Your task to perform on an android device: toggle location history Image 0: 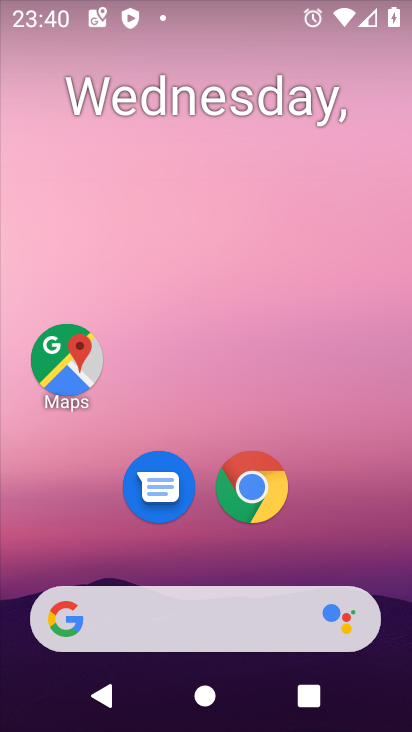
Step 0: click (70, 363)
Your task to perform on an android device: toggle location history Image 1: 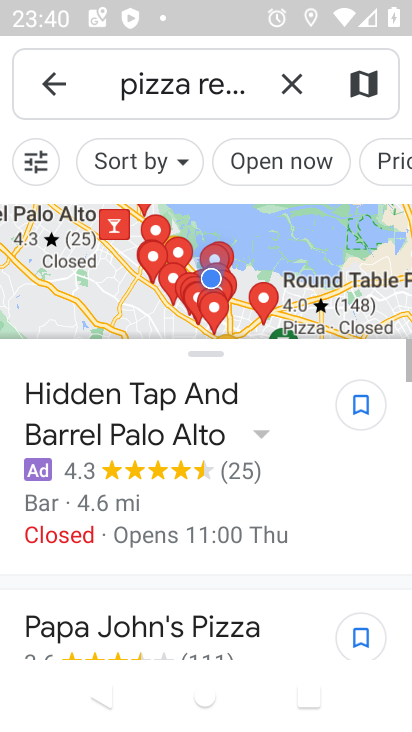
Step 1: click (293, 84)
Your task to perform on an android device: toggle location history Image 2: 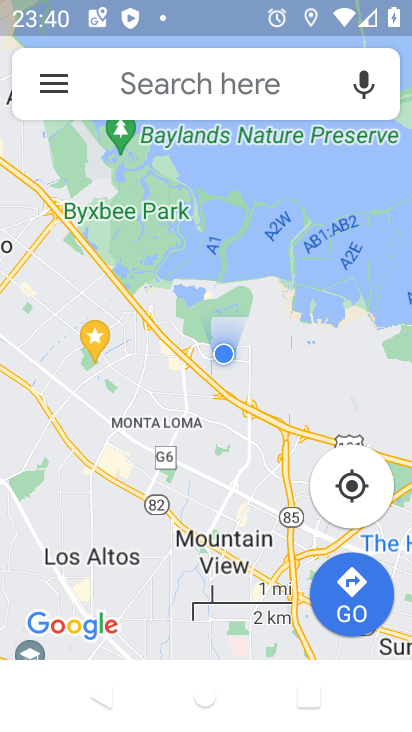
Step 2: click (54, 90)
Your task to perform on an android device: toggle location history Image 3: 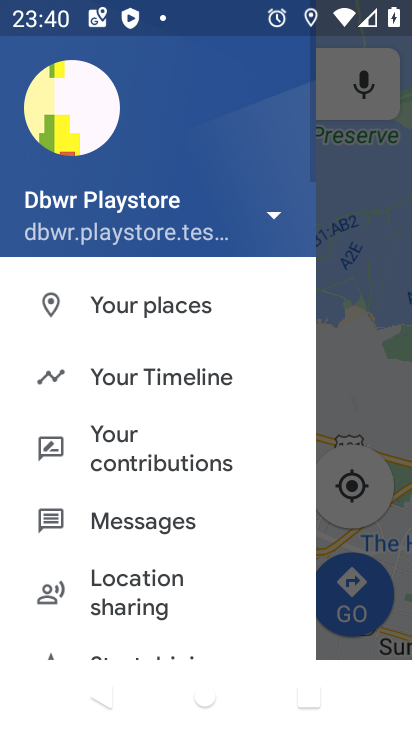
Step 3: click (123, 378)
Your task to perform on an android device: toggle location history Image 4: 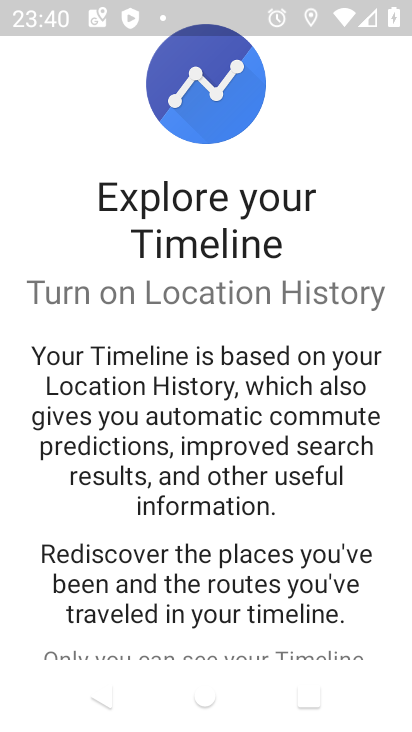
Step 4: drag from (173, 521) to (175, 181)
Your task to perform on an android device: toggle location history Image 5: 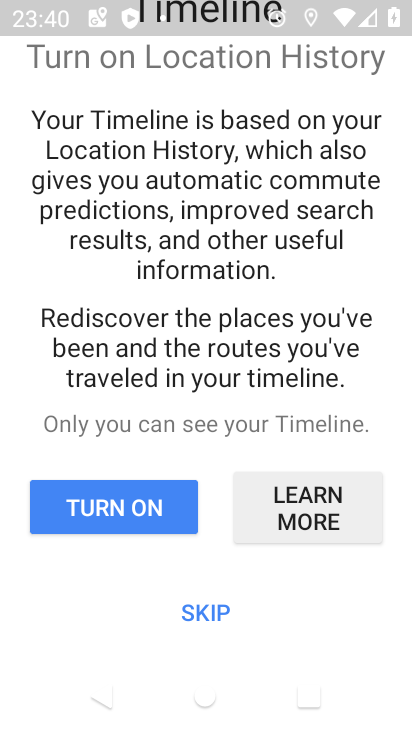
Step 5: click (200, 612)
Your task to perform on an android device: toggle location history Image 6: 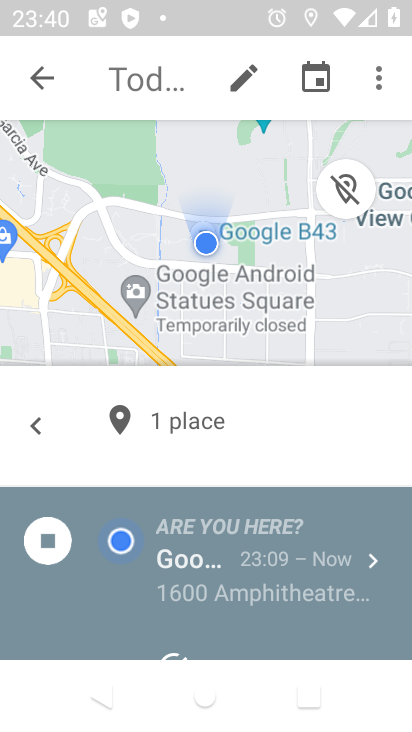
Step 6: click (379, 87)
Your task to perform on an android device: toggle location history Image 7: 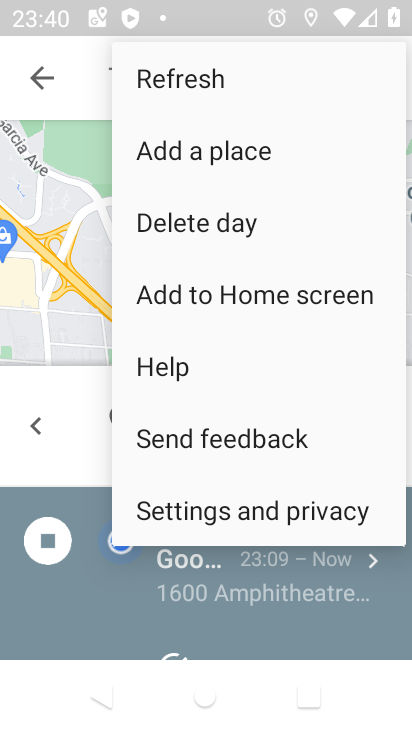
Step 7: click (217, 508)
Your task to perform on an android device: toggle location history Image 8: 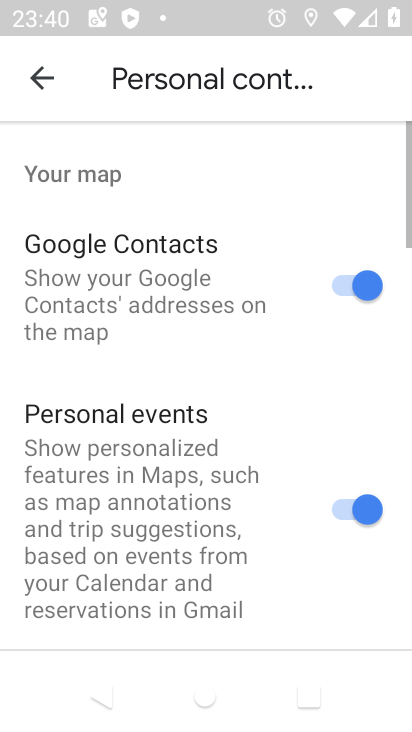
Step 8: drag from (212, 558) to (221, 86)
Your task to perform on an android device: toggle location history Image 9: 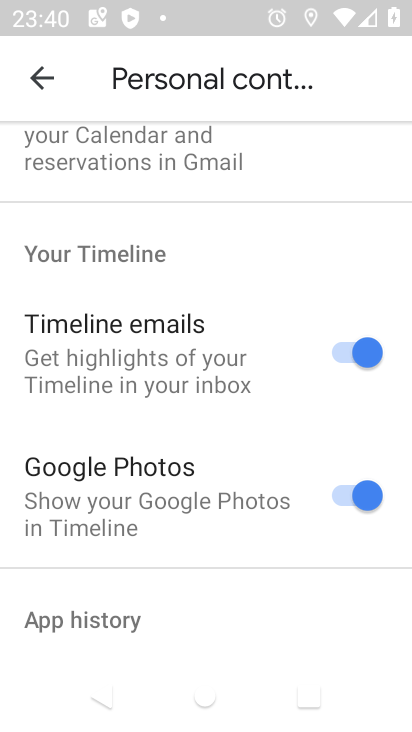
Step 9: drag from (202, 452) to (197, 83)
Your task to perform on an android device: toggle location history Image 10: 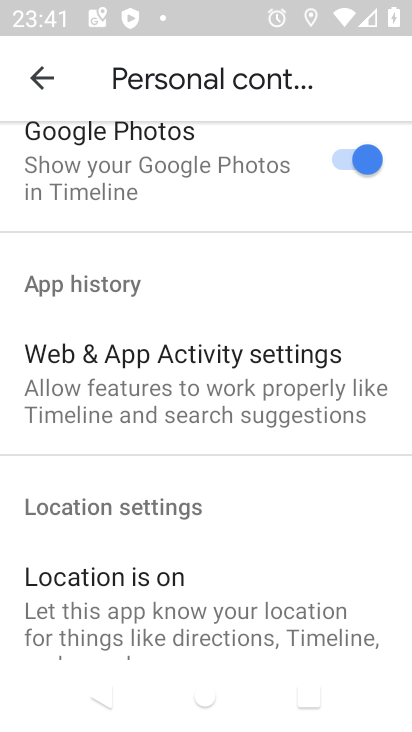
Step 10: drag from (200, 540) to (208, 177)
Your task to perform on an android device: toggle location history Image 11: 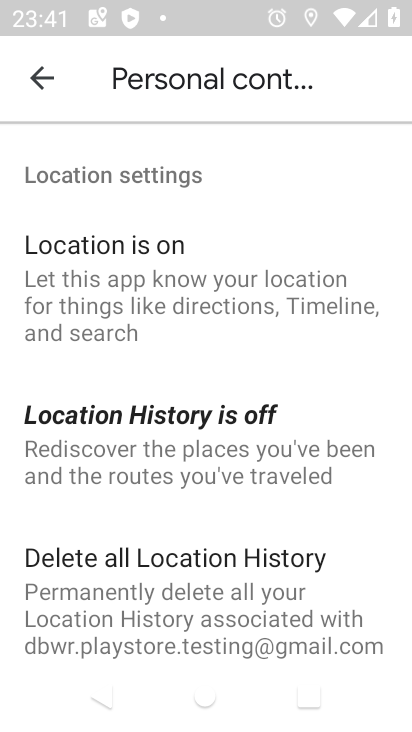
Step 11: click (170, 457)
Your task to perform on an android device: toggle location history Image 12: 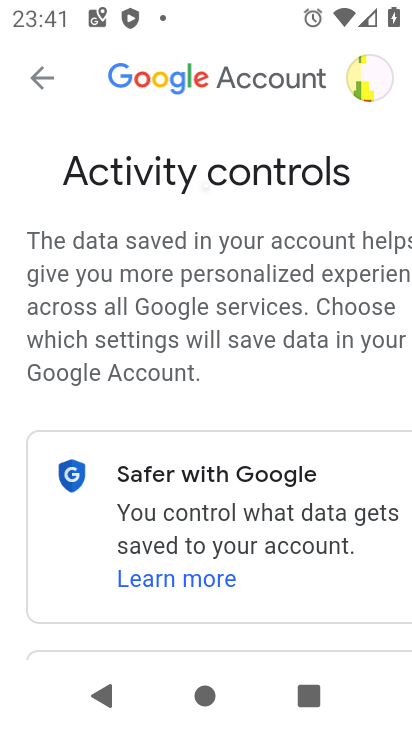
Step 12: drag from (209, 506) to (208, 37)
Your task to perform on an android device: toggle location history Image 13: 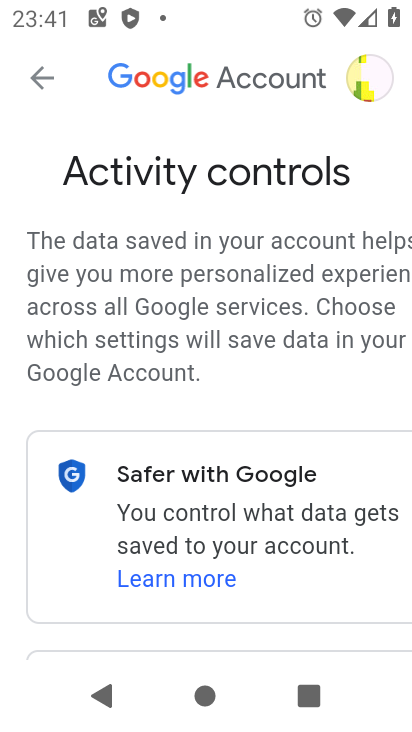
Step 13: drag from (229, 537) to (220, 139)
Your task to perform on an android device: toggle location history Image 14: 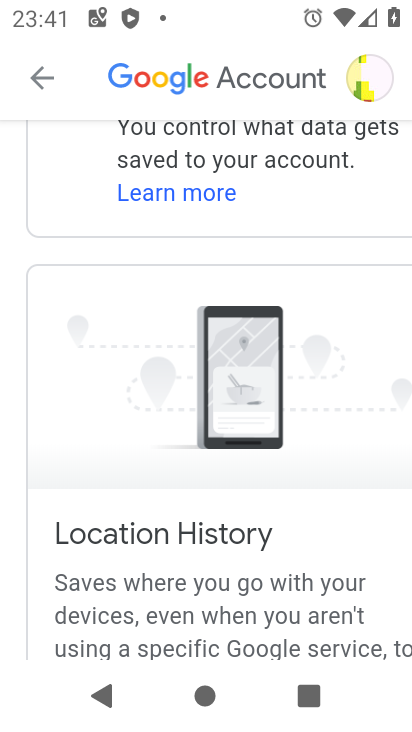
Step 14: drag from (238, 490) to (189, 94)
Your task to perform on an android device: toggle location history Image 15: 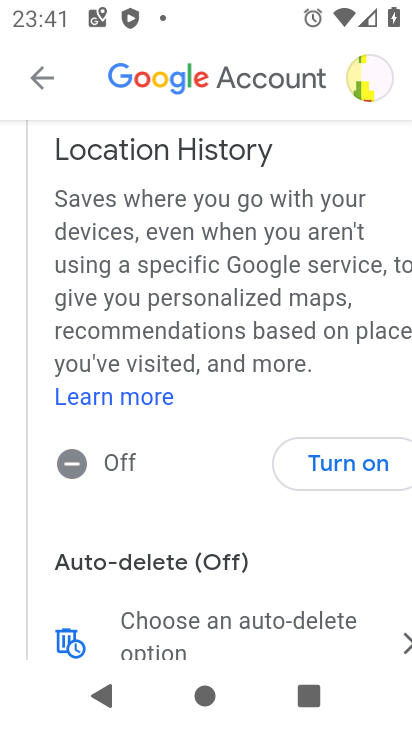
Step 15: click (359, 465)
Your task to perform on an android device: toggle location history Image 16: 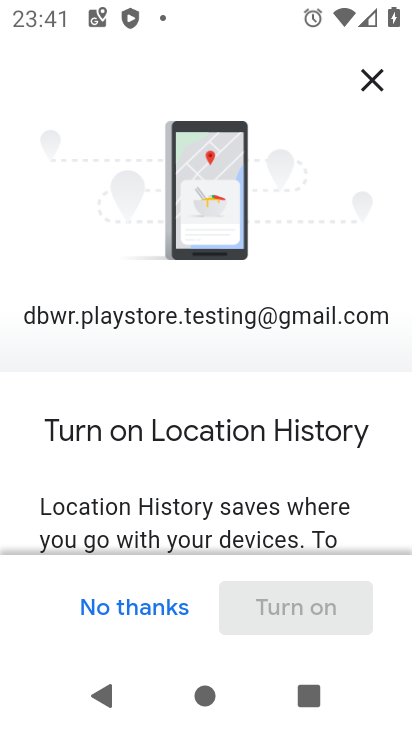
Step 16: drag from (226, 526) to (229, 49)
Your task to perform on an android device: toggle location history Image 17: 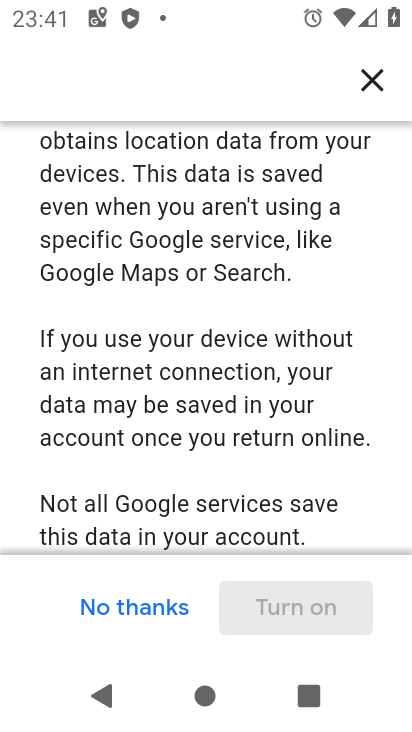
Step 17: drag from (214, 483) to (220, 128)
Your task to perform on an android device: toggle location history Image 18: 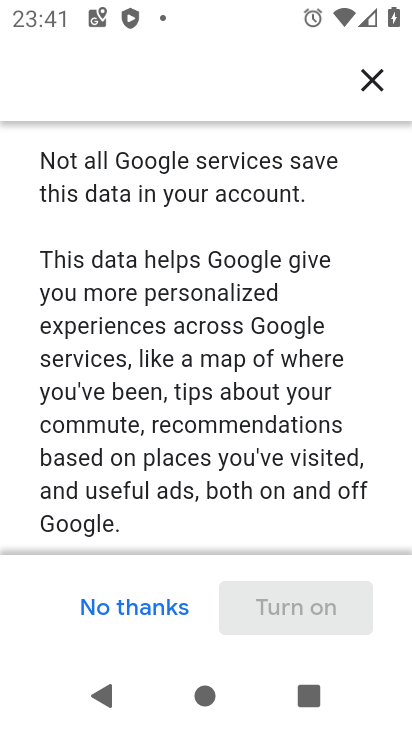
Step 18: drag from (220, 444) to (209, 105)
Your task to perform on an android device: toggle location history Image 19: 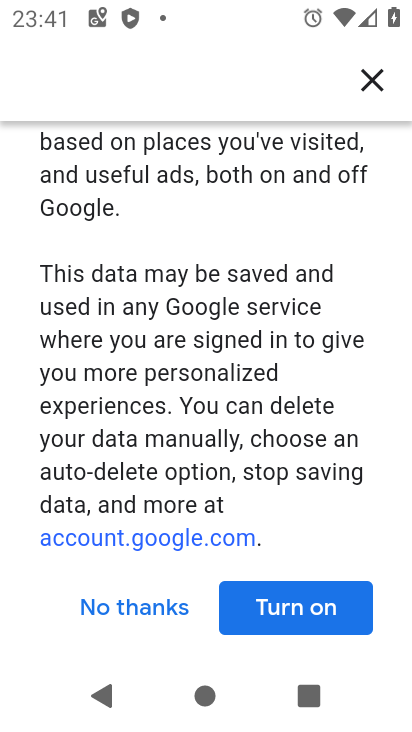
Step 19: drag from (208, 434) to (208, 189)
Your task to perform on an android device: toggle location history Image 20: 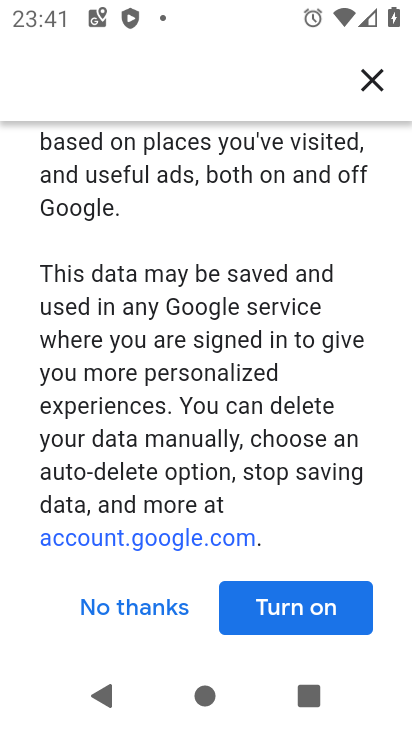
Step 20: click (294, 613)
Your task to perform on an android device: toggle location history Image 21: 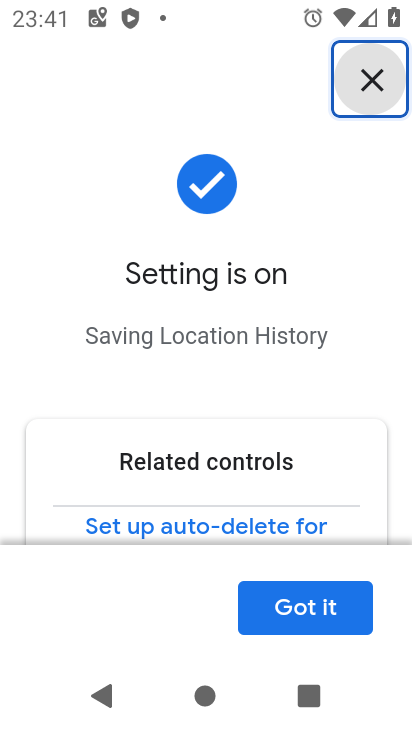
Step 21: click (294, 613)
Your task to perform on an android device: toggle location history Image 22: 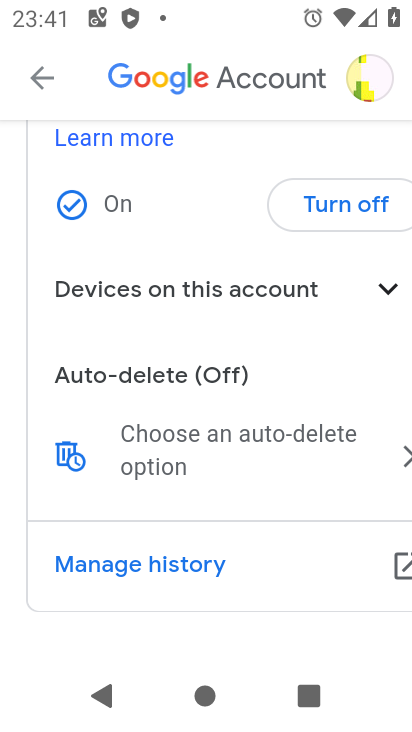
Step 22: task complete